Your task to perform on an android device: Go to notification settings Image 0: 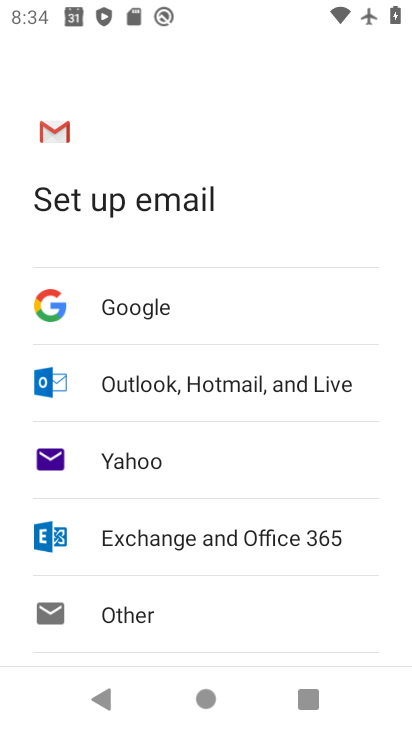
Step 0: press home button
Your task to perform on an android device: Go to notification settings Image 1: 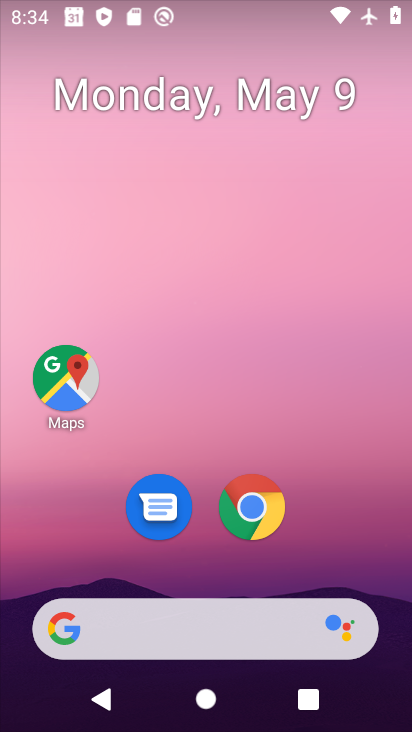
Step 1: drag from (186, 579) to (140, 3)
Your task to perform on an android device: Go to notification settings Image 2: 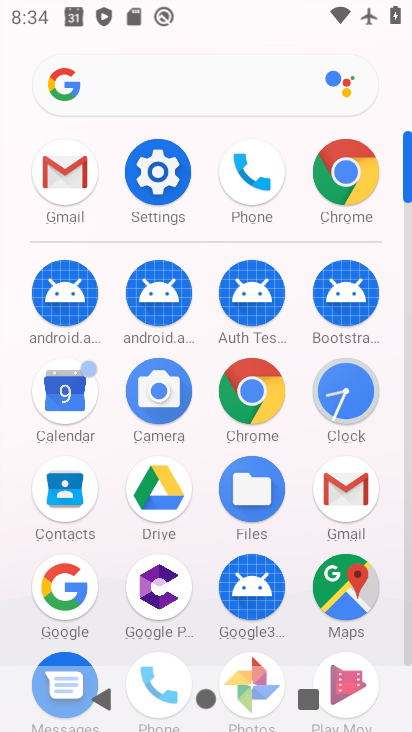
Step 2: click (138, 169)
Your task to perform on an android device: Go to notification settings Image 3: 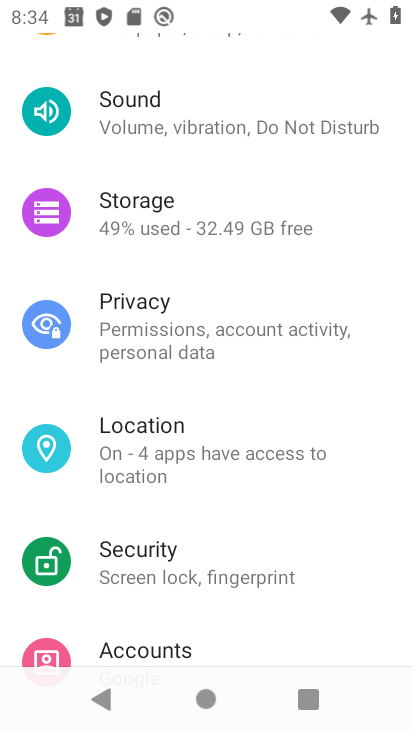
Step 3: drag from (190, 171) to (171, 536)
Your task to perform on an android device: Go to notification settings Image 4: 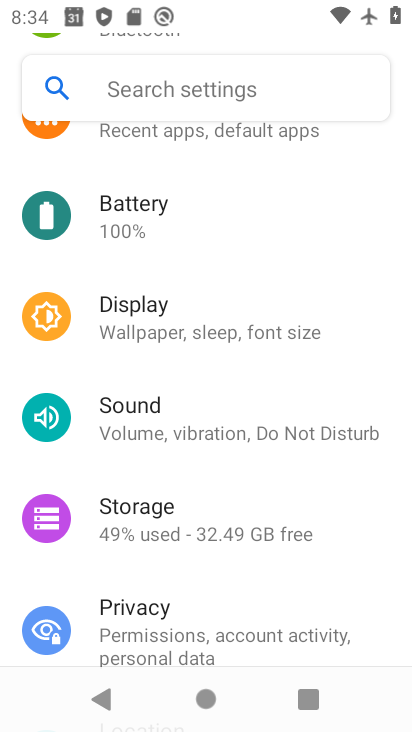
Step 4: click (228, 138)
Your task to perform on an android device: Go to notification settings Image 5: 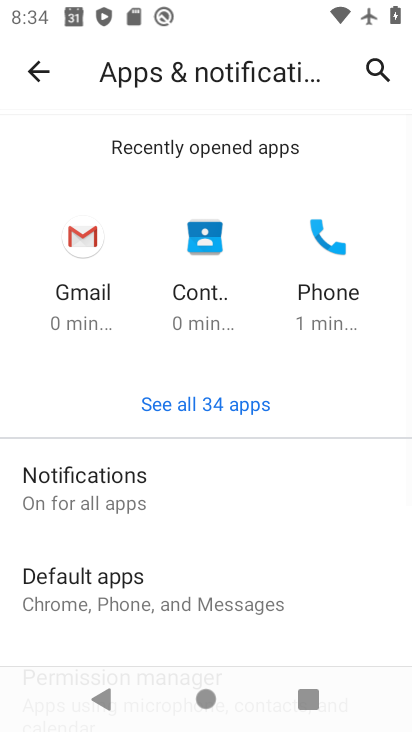
Step 5: click (139, 499)
Your task to perform on an android device: Go to notification settings Image 6: 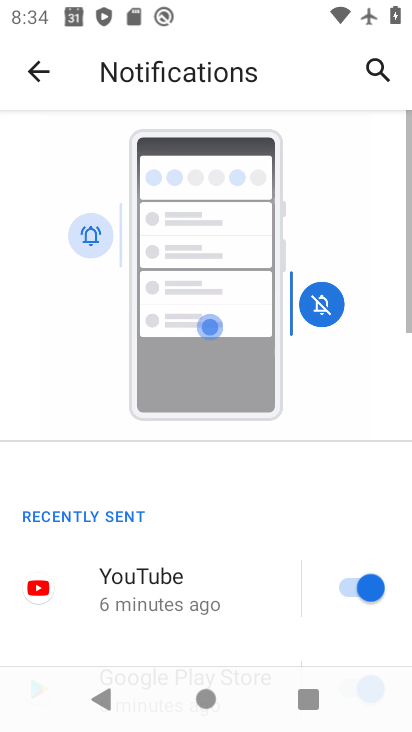
Step 6: task complete